Your task to perform on an android device: change notifications settings Image 0: 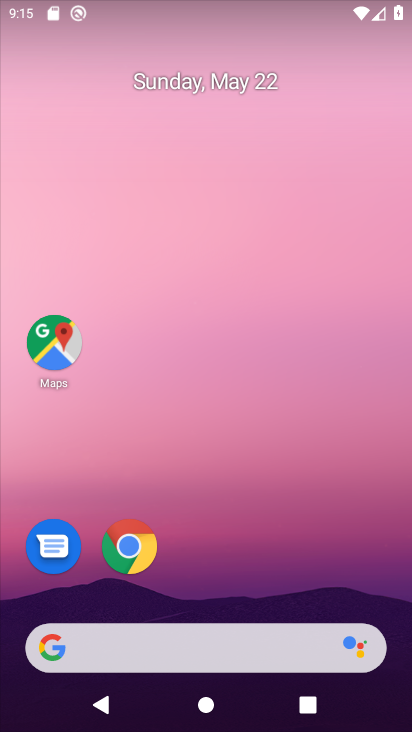
Step 0: drag from (199, 656) to (196, 50)
Your task to perform on an android device: change notifications settings Image 1: 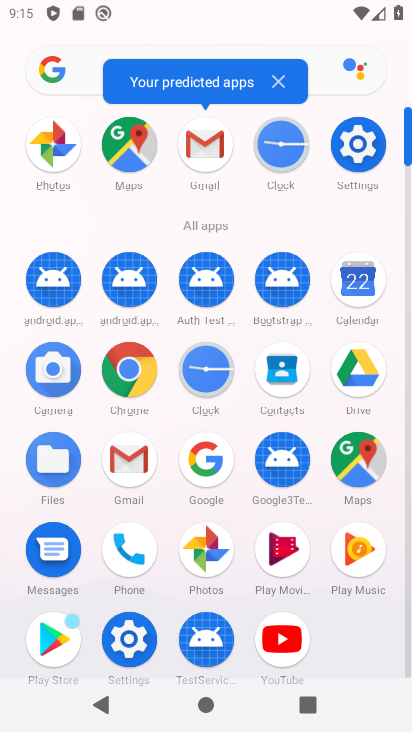
Step 1: click (353, 160)
Your task to perform on an android device: change notifications settings Image 2: 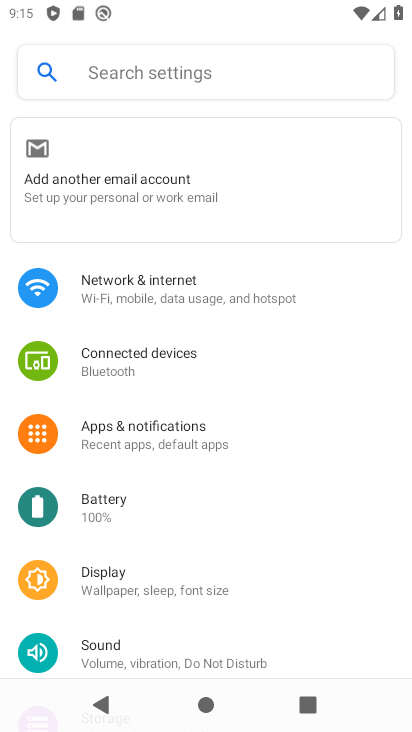
Step 2: click (122, 654)
Your task to perform on an android device: change notifications settings Image 3: 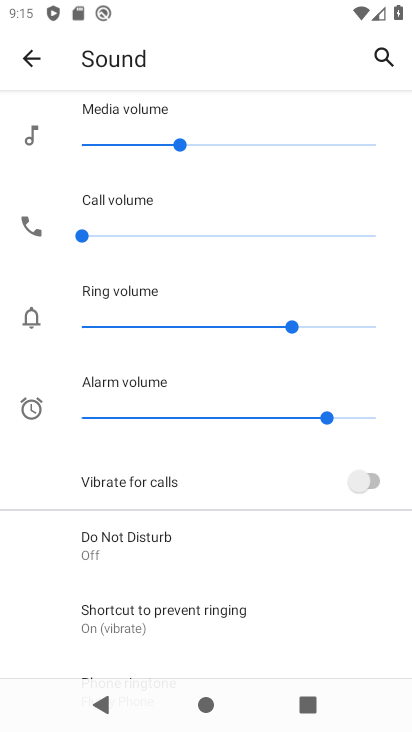
Step 3: click (371, 482)
Your task to perform on an android device: change notifications settings Image 4: 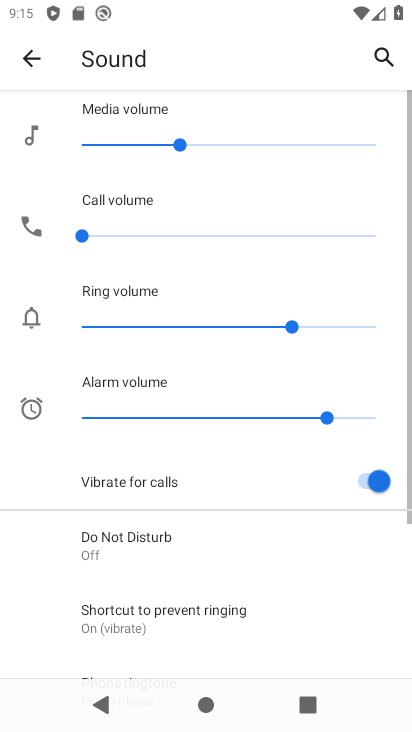
Step 4: task complete